Your task to perform on an android device: Open settings on Google Maps Image 0: 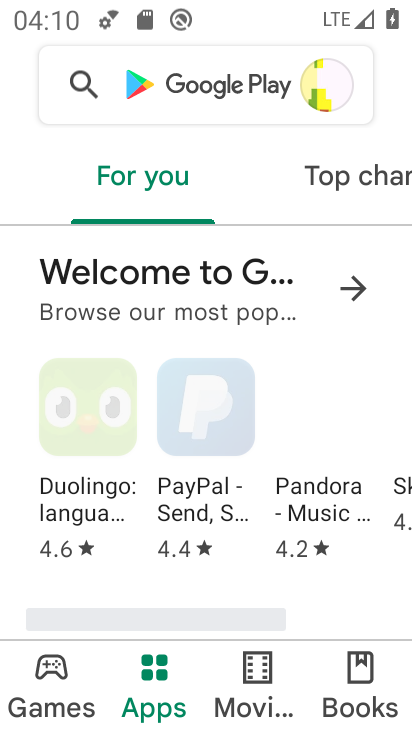
Step 0: press back button
Your task to perform on an android device: Open settings on Google Maps Image 1: 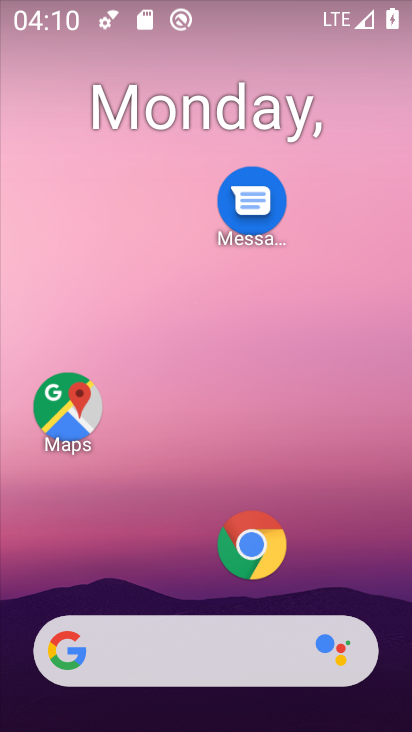
Step 1: click (63, 414)
Your task to perform on an android device: Open settings on Google Maps Image 2: 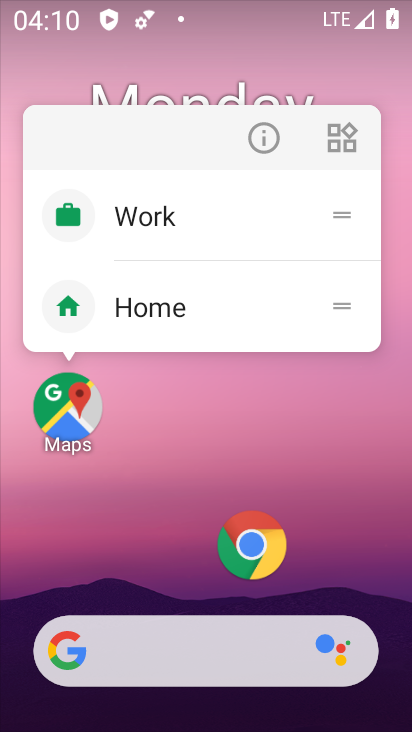
Step 2: click (71, 413)
Your task to perform on an android device: Open settings on Google Maps Image 3: 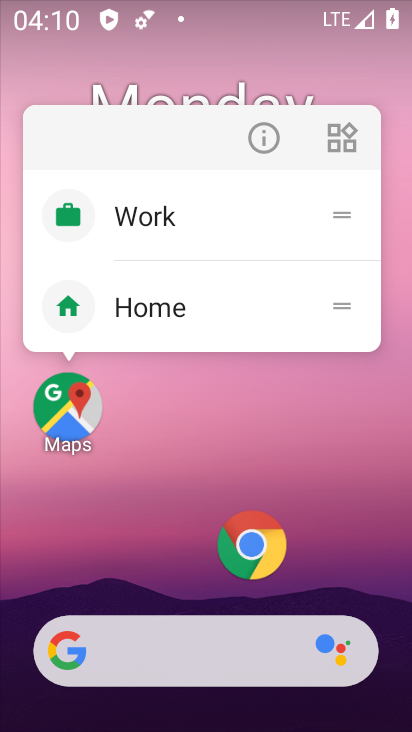
Step 3: click (71, 413)
Your task to perform on an android device: Open settings on Google Maps Image 4: 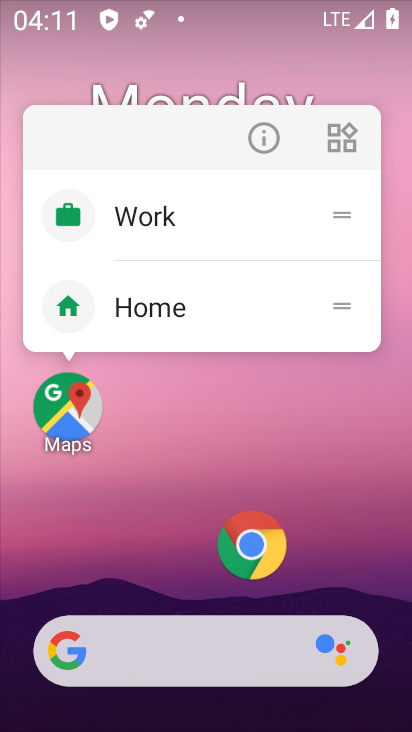
Step 4: click (65, 400)
Your task to perform on an android device: Open settings on Google Maps Image 5: 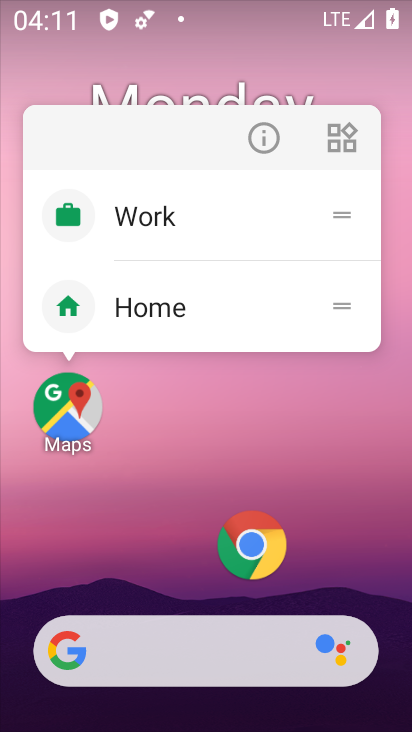
Step 5: click (43, 405)
Your task to perform on an android device: Open settings on Google Maps Image 6: 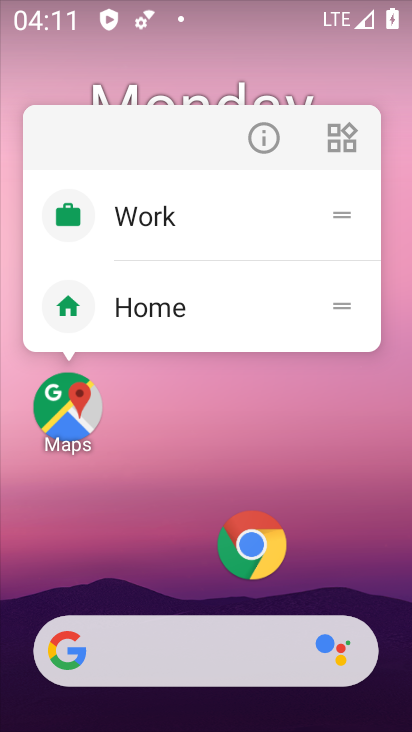
Step 6: click (66, 399)
Your task to perform on an android device: Open settings on Google Maps Image 7: 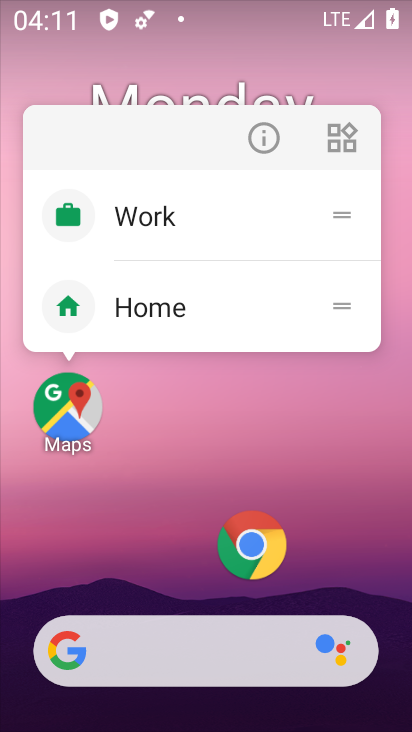
Step 7: click (52, 399)
Your task to perform on an android device: Open settings on Google Maps Image 8: 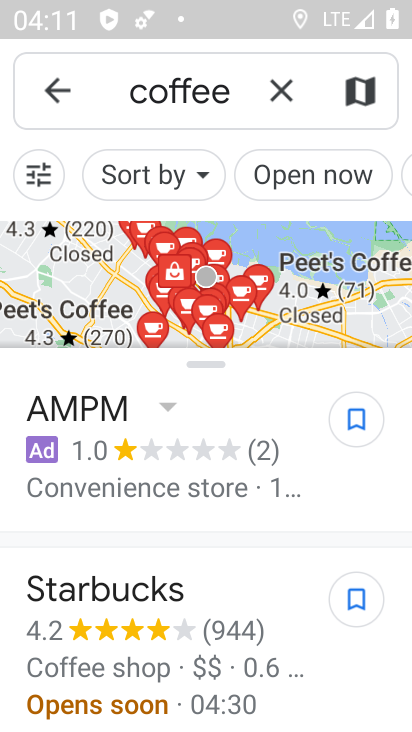
Step 8: click (64, 81)
Your task to perform on an android device: Open settings on Google Maps Image 9: 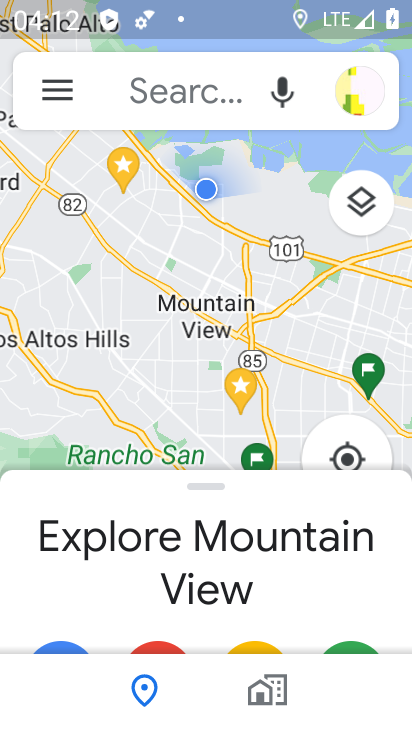
Step 9: click (66, 80)
Your task to perform on an android device: Open settings on Google Maps Image 10: 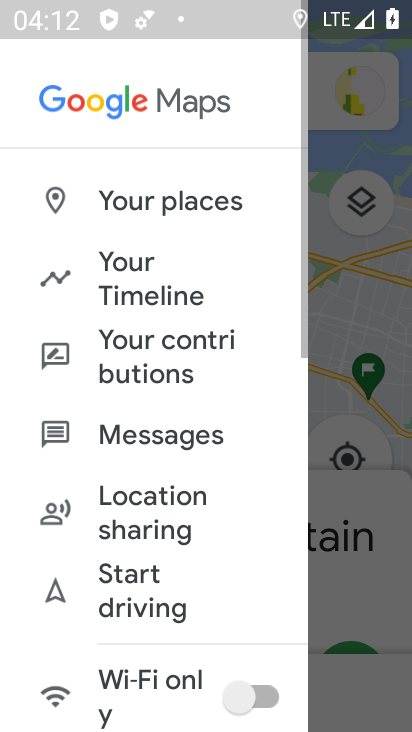
Step 10: drag from (186, 629) to (244, 96)
Your task to perform on an android device: Open settings on Google Maps Image 11: 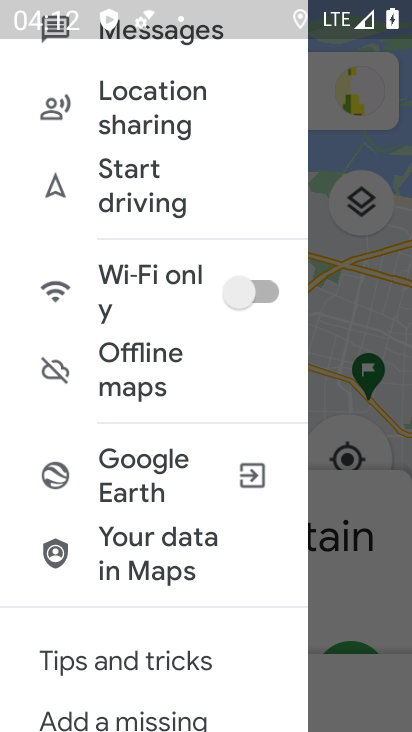
Step 11: drag from (97, 654) to (227, 167)
Your task to perform on an android device: Open settings on Google Maps Image 12: 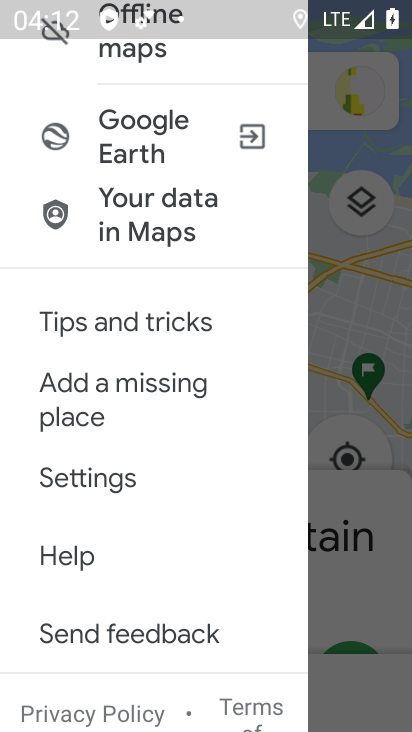
Step 12: click (112, 478)
Your task to perform on an android device: Open settings on Google Maps Image 13: 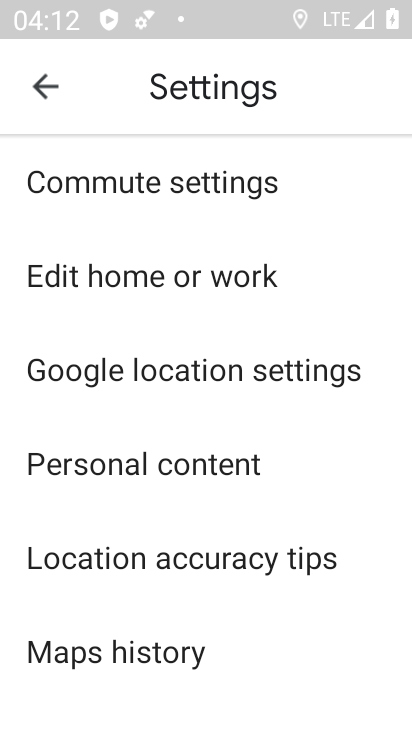
Step 13: task complete